Your task to perform on an android device: Go to wifi settings Image 0: 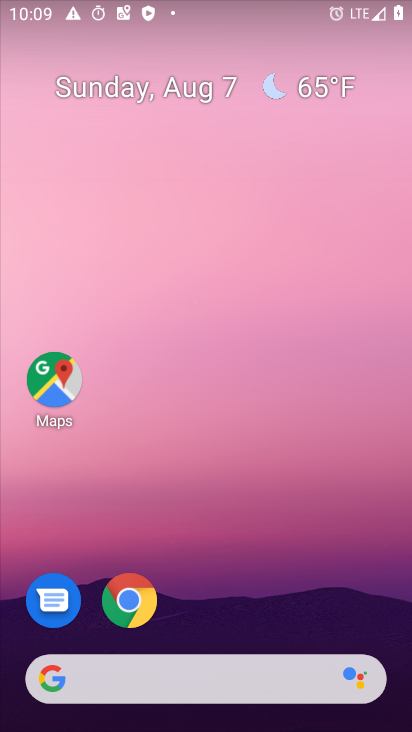
Step 0: drag from (219, 437) to (255, 16)
Your task to perform on an android device: Go to wifi settings Image 1: 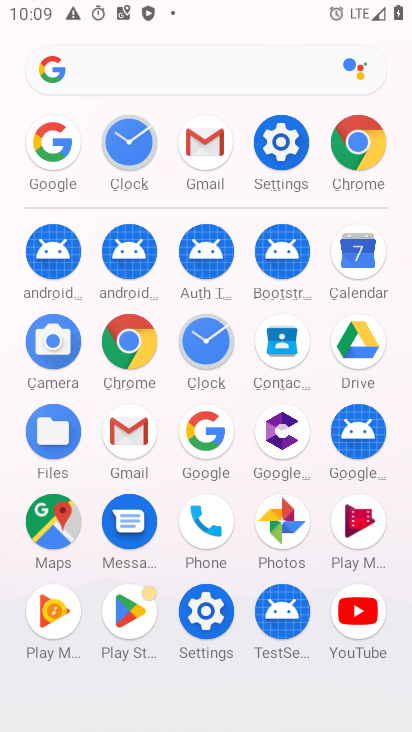
Step 1: click (277, 138)
Your task to perform on an android device: Go to wifi settings Image 2: 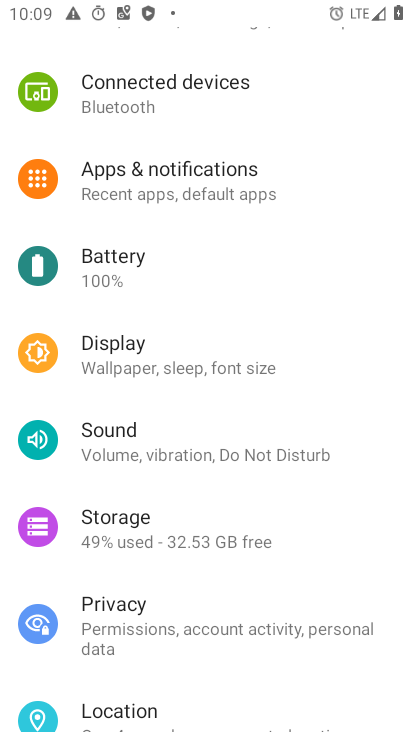
Step 2: drag from (121, 586) to (187, 253)
Your task to perform on an android device: Go to wifi settings Image 3: 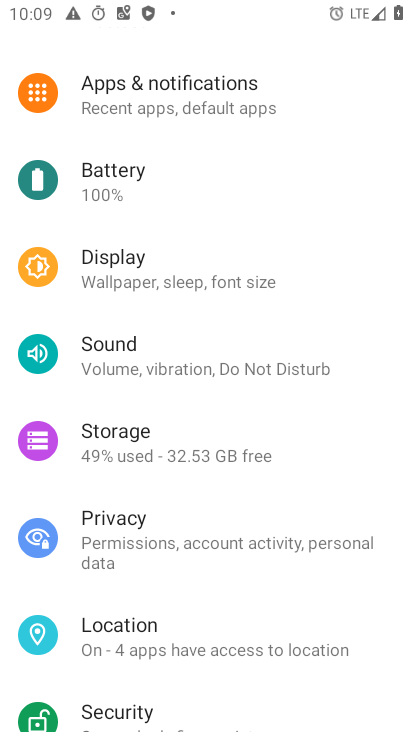
Step 3: drag from (129, 604) to (242, 119)
Your task to perform on an android device: Go to wifi settings Image 4: 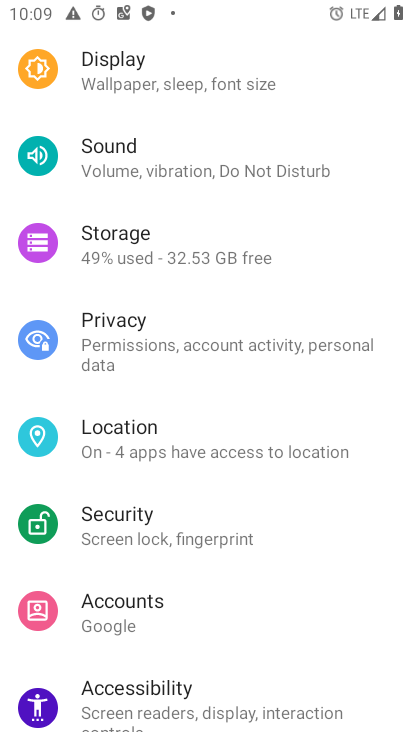
Step 4: drag from (213, 243) to (181, 528)
Your task to perform on an android device: Go to wifi settings Image 5: 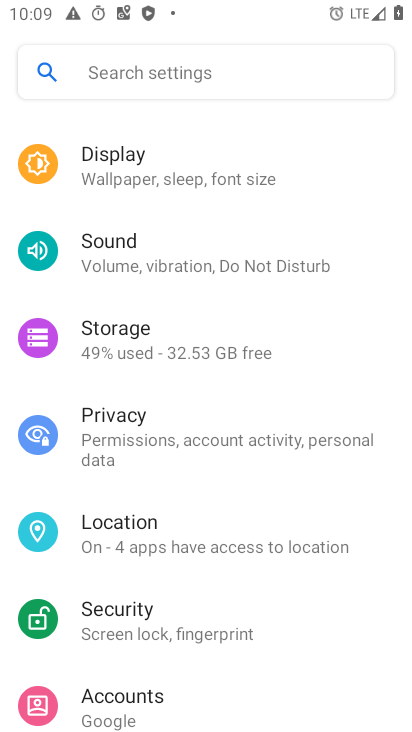
Step 5: drag from (212, 308) to (158, 639)
Your task to perform on an android device: Go to wifi settings Image 6: 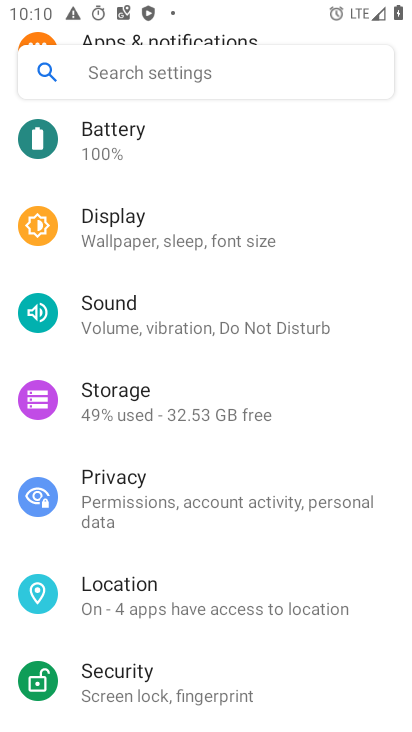
Step 6: drag from (197, 349) to (194, 567)
Your task to perform on an android device: Go to wifi settings Image 7: 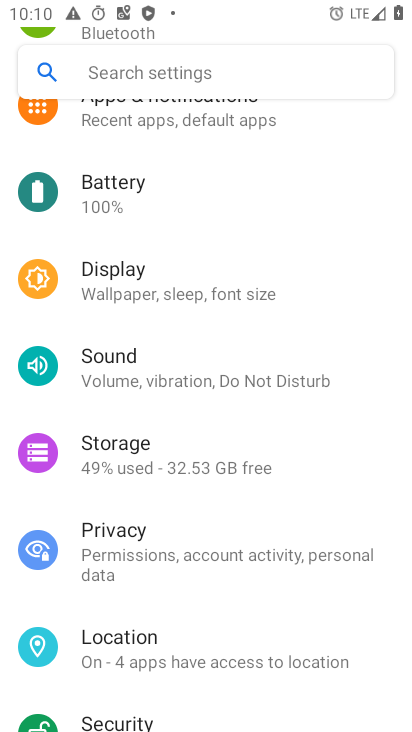
Step 7: drag from (185, 359) to (178, 598)
Your task to perform on an android device: Go to wifi settings Image 8: 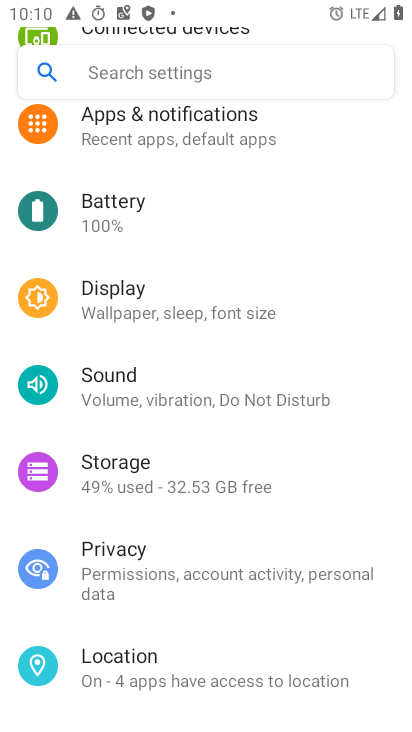
Step 8: drag from (170, 431) to (163, 474)
Your task to perform on an android device: Go to wifi settings Image 9: 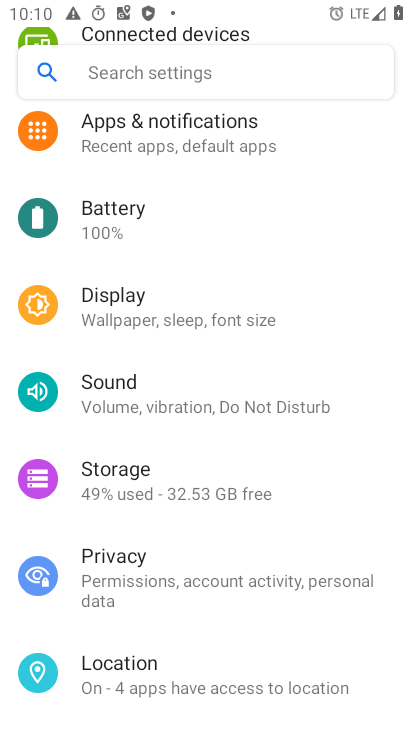
Step 9: drag from (218, 452) to (232, 568)
Your task to perform on an android device: Go to wifi settings Image 10: 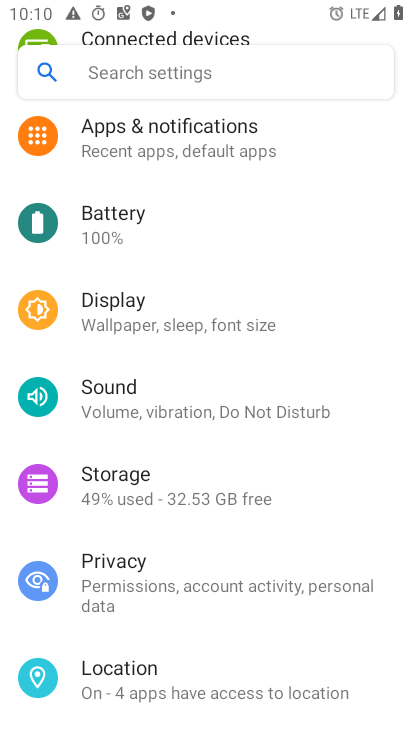
Step 10: drag from (222, 354) to (141, 716)
Your task to perform on an android device: Go to wifi settings Image 11: 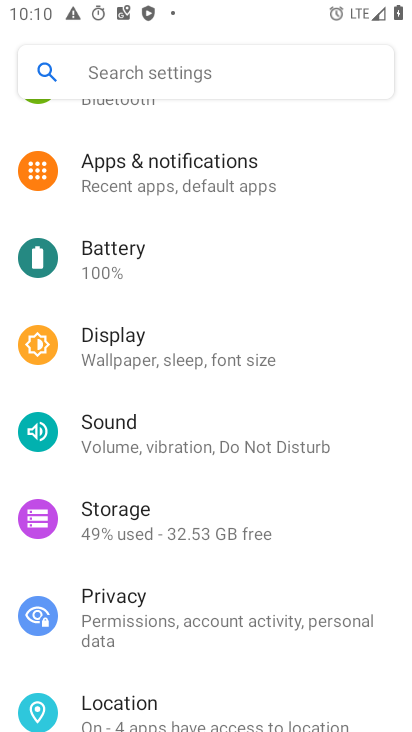
Step 11: drag from (190, 244) to (149, 607)
Your task to perform on an android device: Go to wifi settings Image 12: 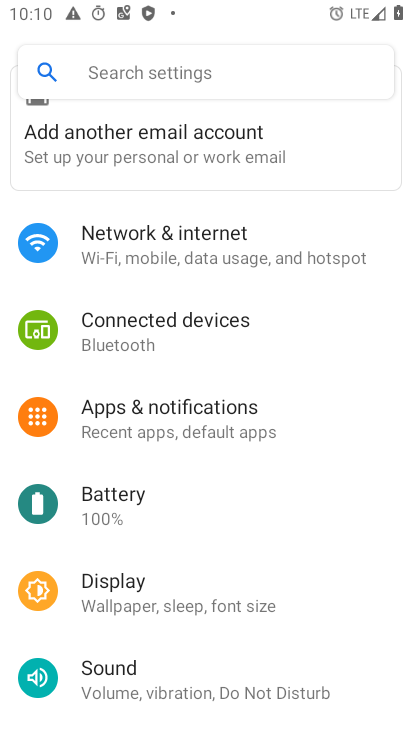
Step 12: click (204, 254)
Your task to perform on an android device: Go to wifi settings Image 13: 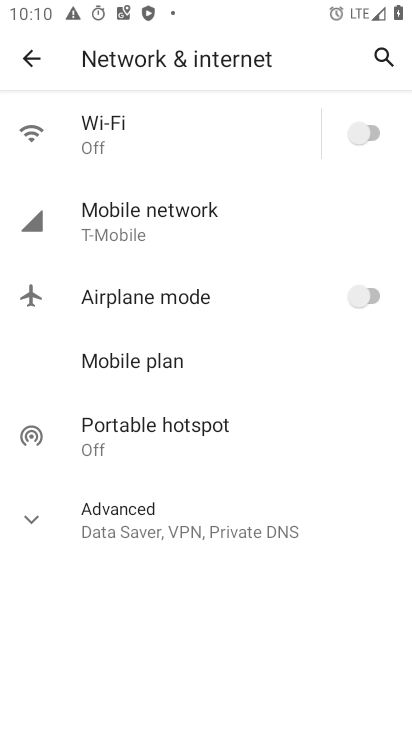
Step 13: click (168, 145)
Your task to perform on an android device: Go to wifi settings Image 14: 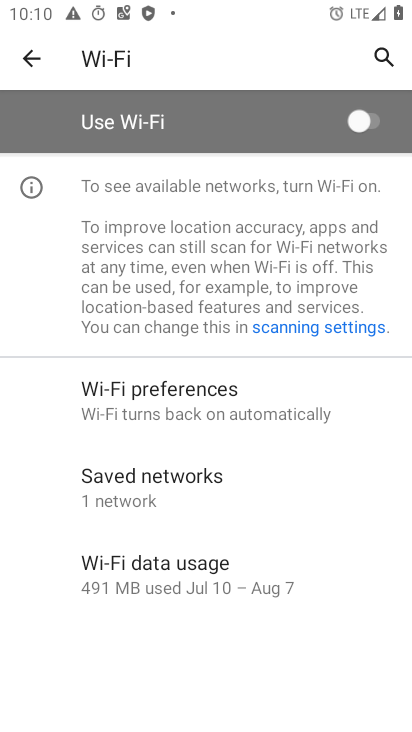
Step 14: task complete